Your task to perform on an android device: check storage Image 0: 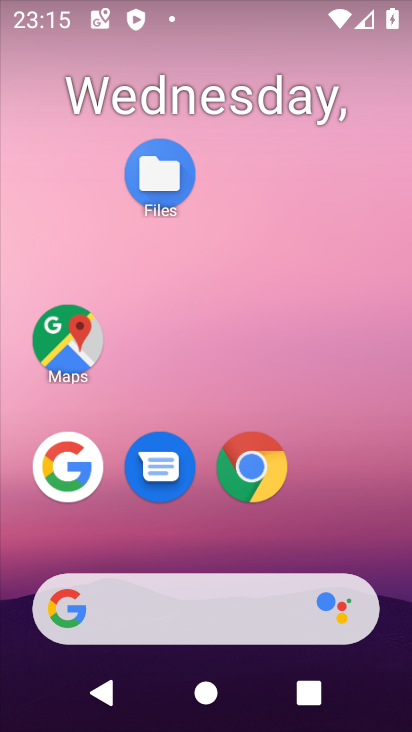
Step 0: drag from (226, 543) to (282, 55)
Your task to perform on an android device: check storage Image 1: 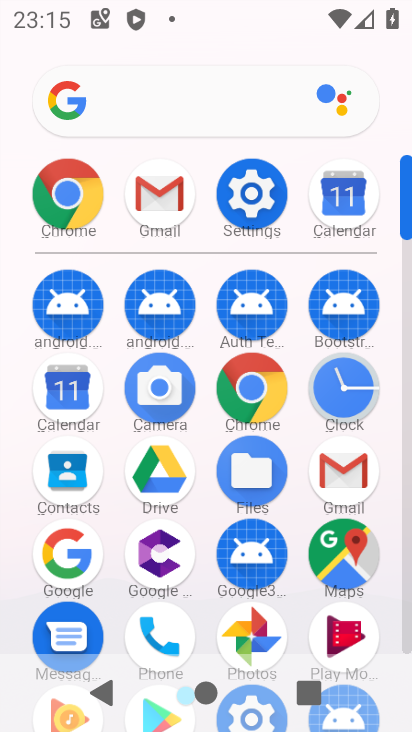
Step 1: click (265, 206)
Your task to perform on an android device: check storage Image 2: 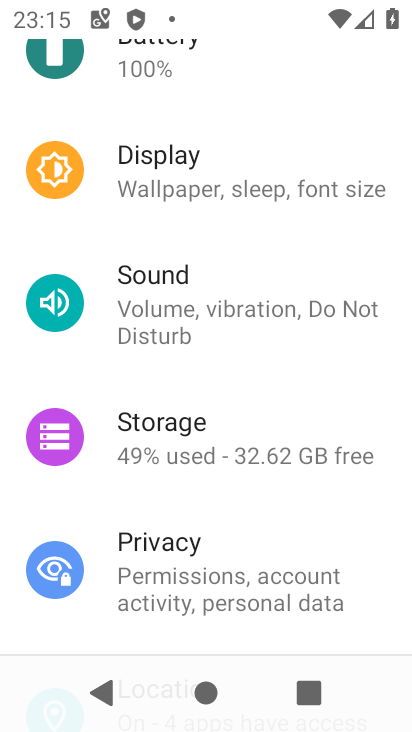
Step 2: click (216, 428)
Your task to perform on an android device: check storage Image 3: 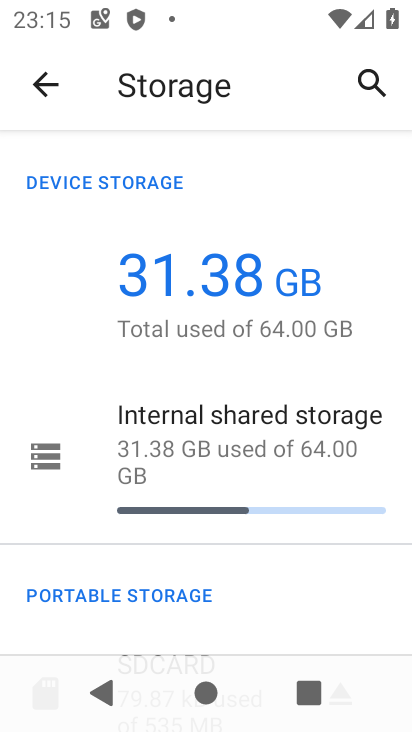
Step 3: task complete